Your task to perform on an android device: move a message to another label in the gmail app Image 0: 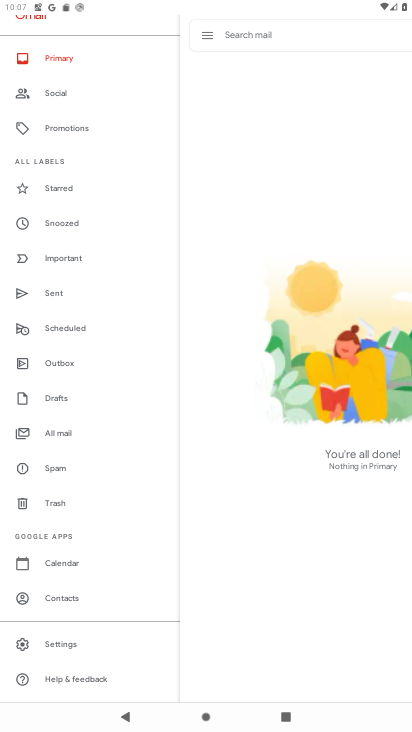
Step 0: press home button
Your task to perform on an android device: move a message to another label in the gmail app Image 1: 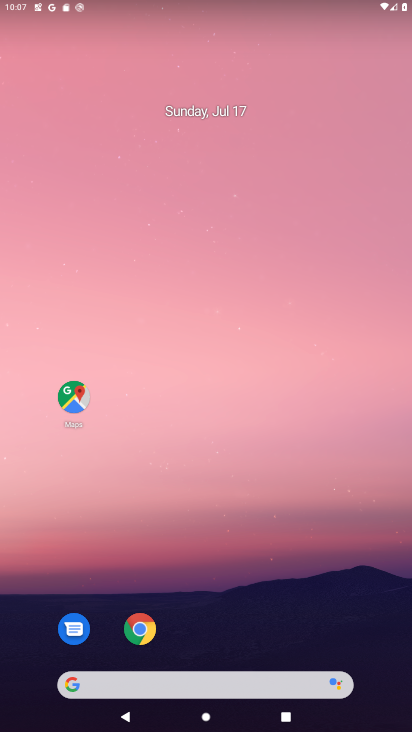
Step 1: drag from (194, 677) to (245, 160)
Your task to perform on an android device: move a message to another label in the gmail app Image 2: 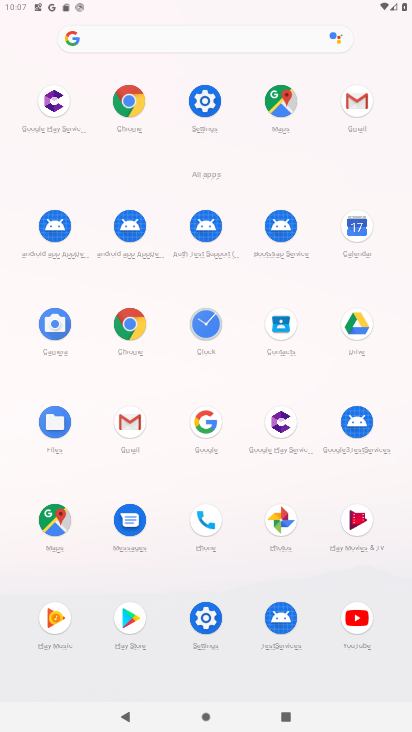
Step 2: click (131, 419)
Your task to perform on an android device: move a message to another label in the gmail app Image 3: 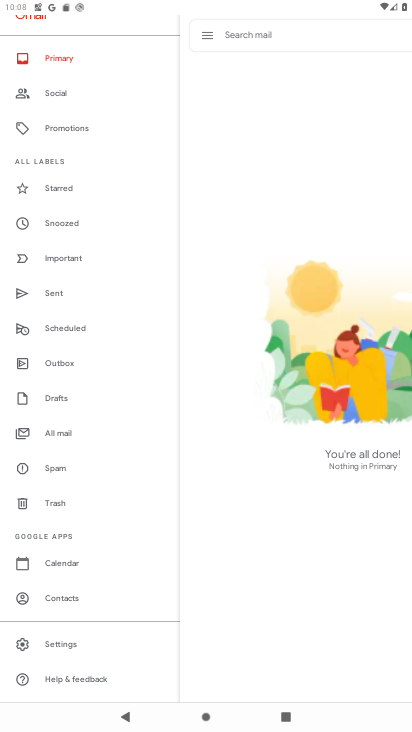
Step 3: click (65, 431)
Your task to perform on an android device: move a message to another label in the gmail app Image 4: 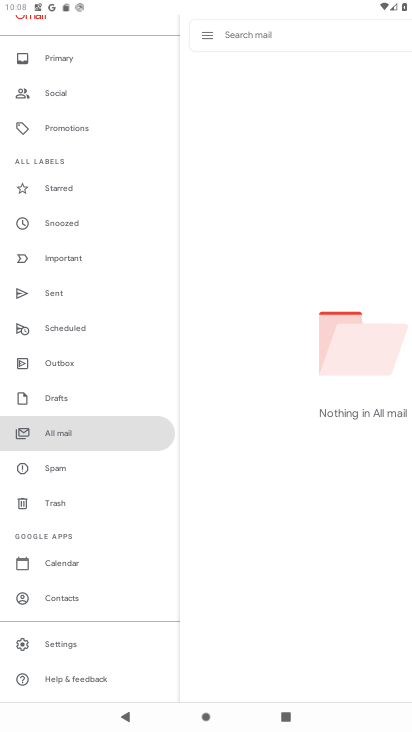
Step 4: task complete